Your task to perform on an android device: open app "Venmo" (install if not already installed) Image 0: 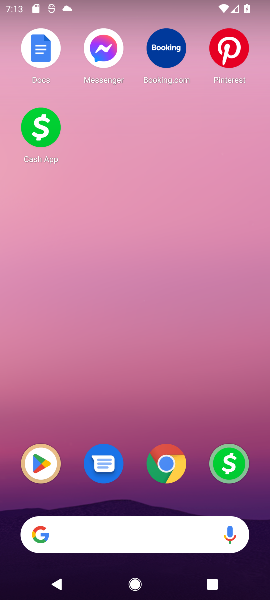
Step 0: click (52, 473)
Your task to perform on an android device: open app "Venmo" (install if not already installed) Image 1: 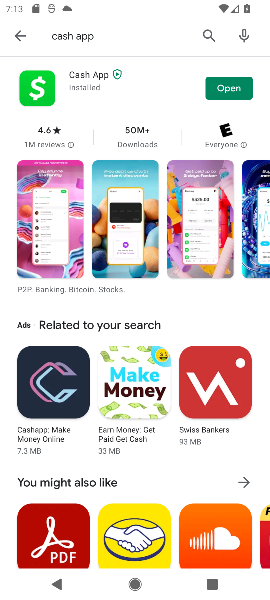
Step 1: click (209, 40)
Your task to perform on an android device: open app "Venmo" (install if not already installed) Image 2: 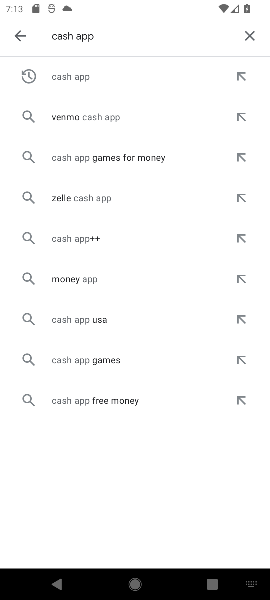
Step 2: click (250, 41)
Your task to perform on an android device: open app "Venmo" (install if not already installed) Image 3: 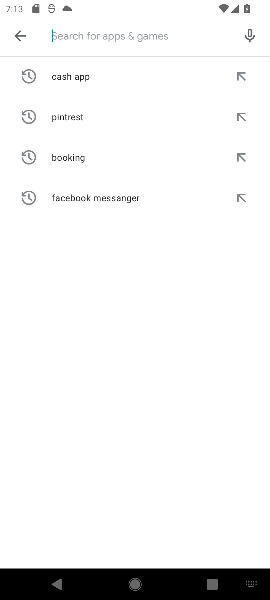
Step 3: type "venmo"
Your task to perform on an android device: open app "Venmo" (install if not already installed) Image 4: 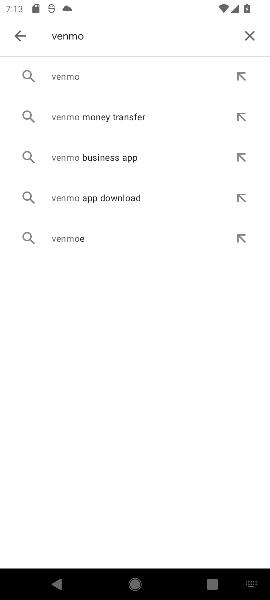
Step 4: click (169, 76)
Your task to perform on an android device: open app "Venmo" (install if not already installed) Image 5: 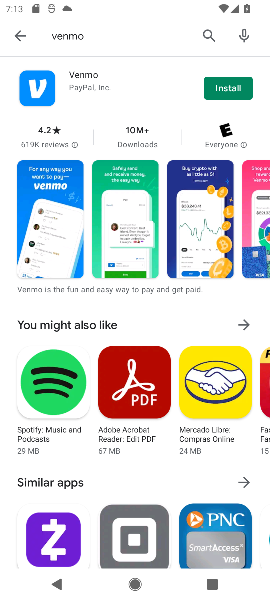
Step 5: task complete